Your task to perform on an android device: Go to eBay Image 0: 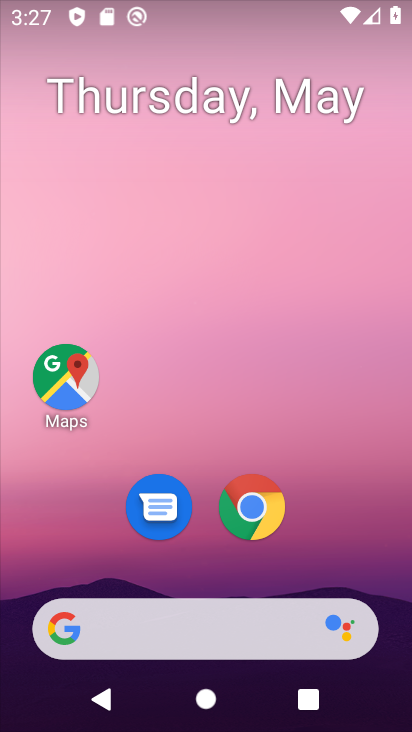
Step 0: drag from (343, 577) to (198, 126)
Your task to perform on an android device: Go to eBay Image 1: 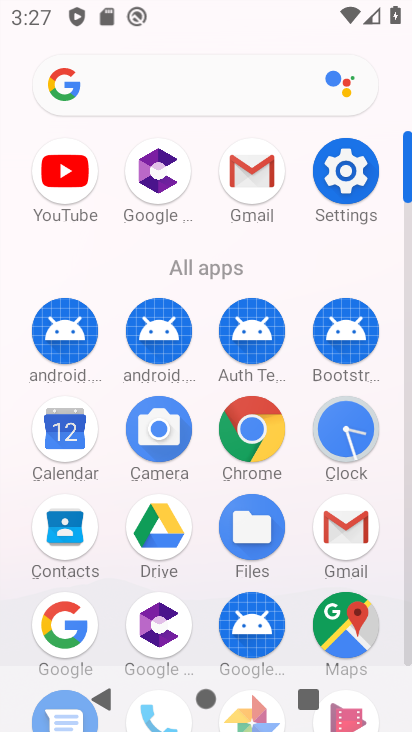
Step 1: click (252, 433)
Your task to perform on an android device: Go to eBay Image 2: 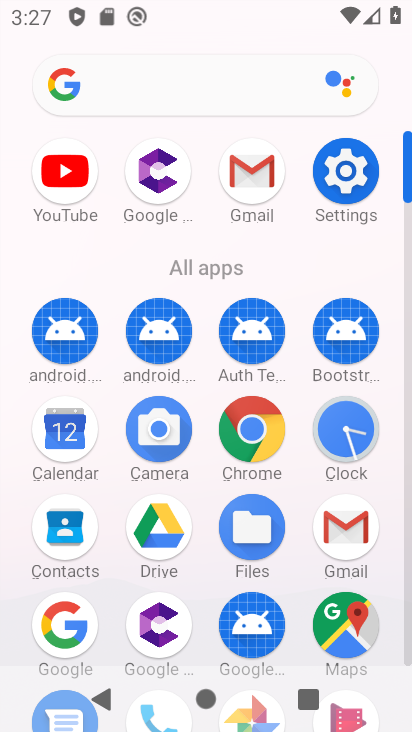
Step 2: click (251, 433)
Your task to perform on an android device: Go to eBay Image 3: 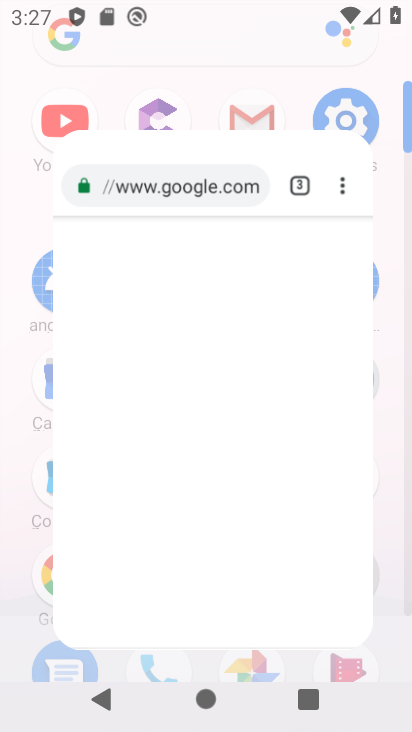
Step 3: click (251, 433)
Your task to perform on an android device: Go to eBay Image 4: 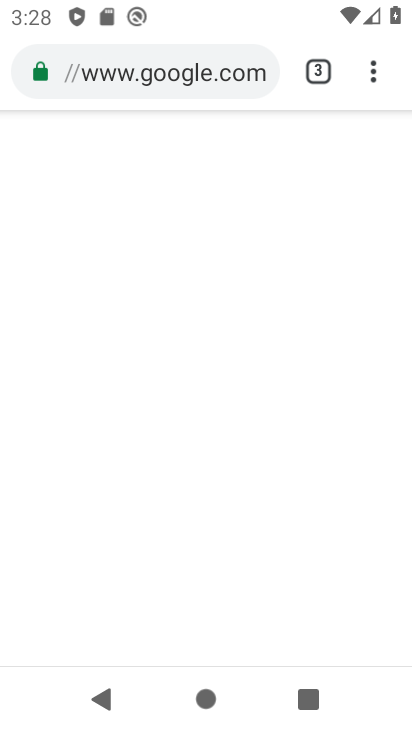
Step 4: click (377, 77)
Your task to perform on an android device: Go to eBay Image 5: 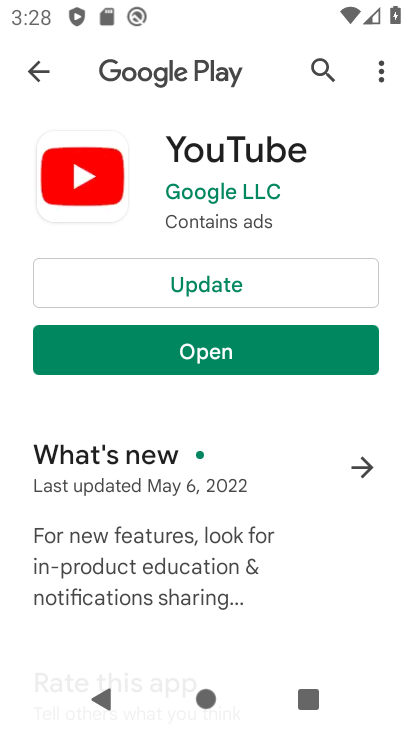
Step 5: press back button
Your task to perform on an android device: Go to eBay Image 6: 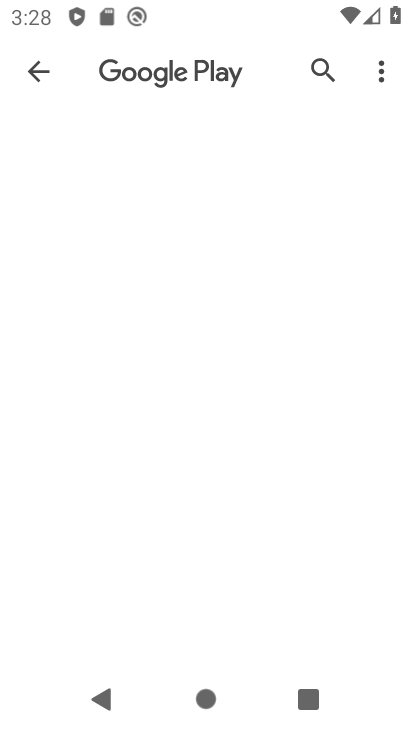
Step 6: press back button
Your task to perform on an android device: Go to eBay Image 7: 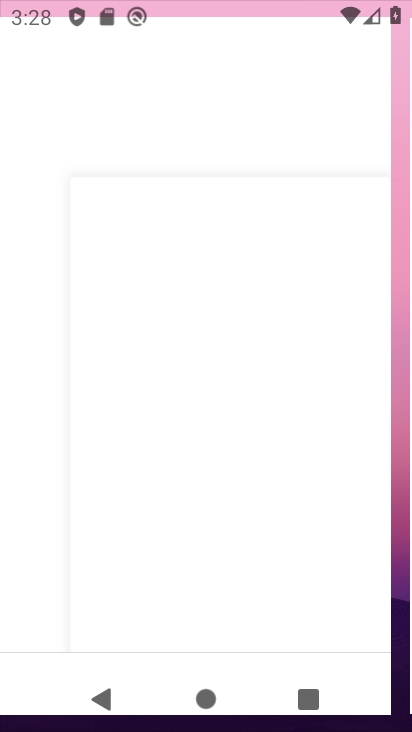
Step 7: press back button
Your task to perform on an android device: Go to eBay Image 8: 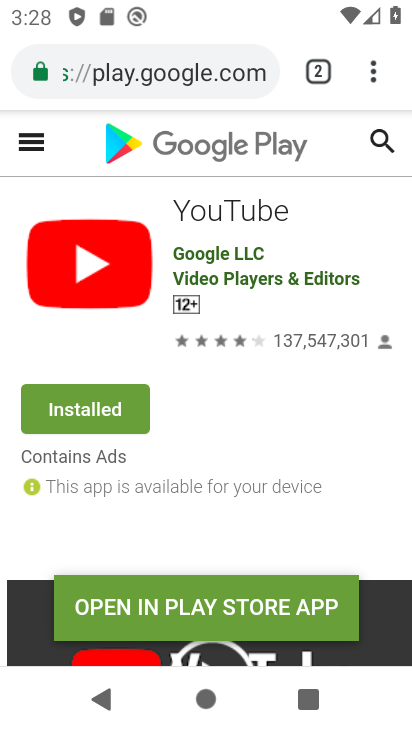
Step 8: press home button
Your task to perform on an android device: Go to eBay Image 9: 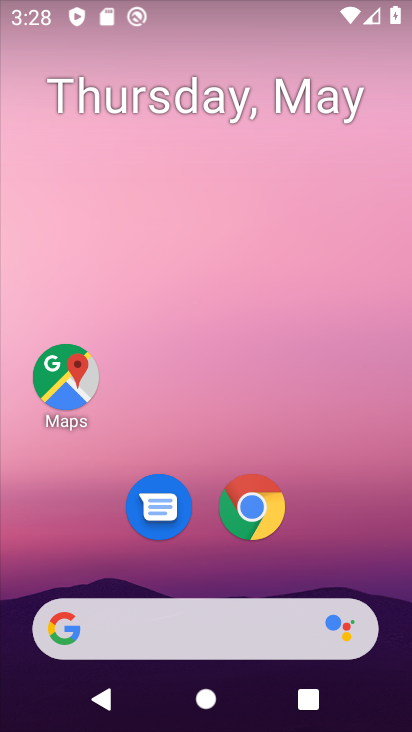
Step 9: drag from (261, 563) to (194, 228)
Your task to perform on an android device: Go to eBay Image 10: 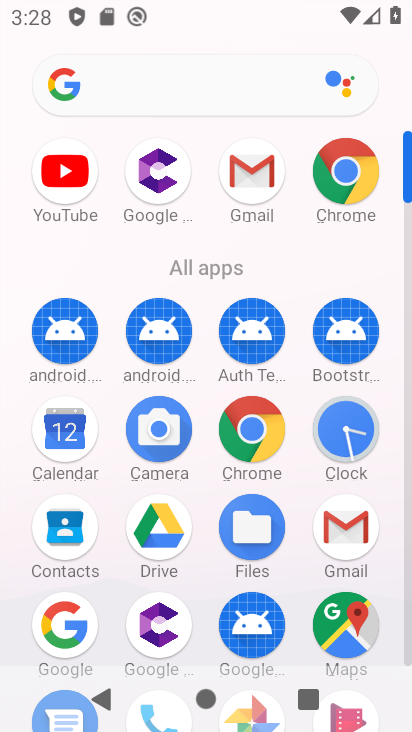
Step 10: click (344, 178)
Your task to perform on an android device: Go to eBay Image 11: 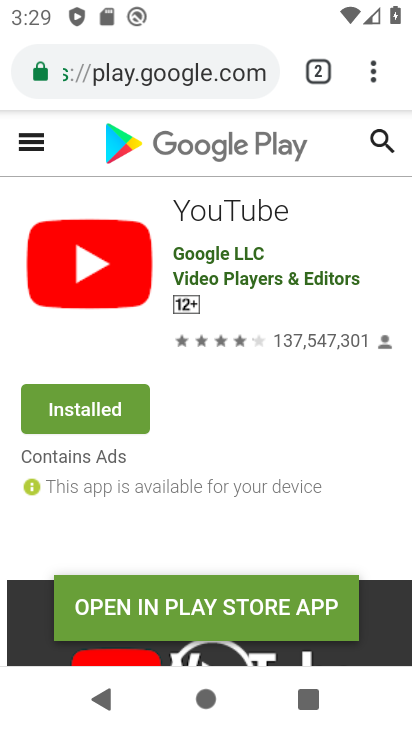
Step 11: press back button
Your task to perform on an android device: Go to eBay Image 12: 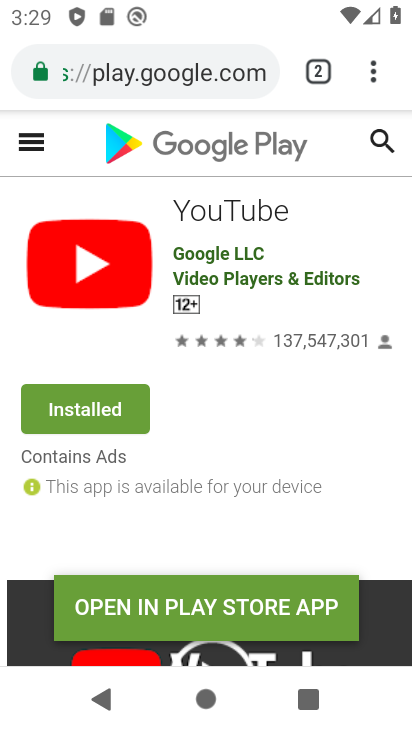
Step 12: press back button
Your task to perform on an android device: Go to eBay Image 13: 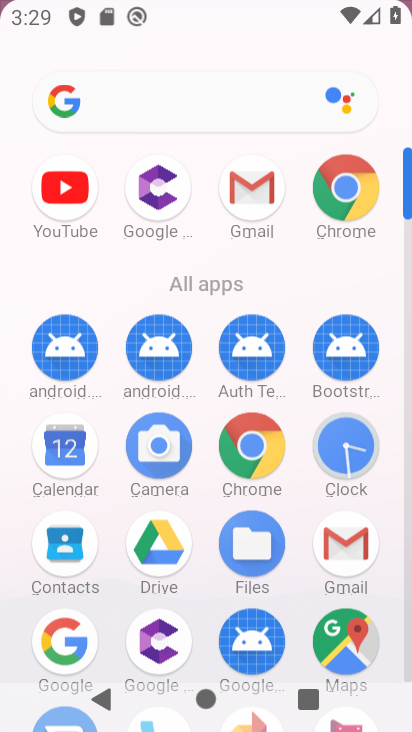
Step 13: press back button
Your task to perform on an android device: Go to eBay Image 14: 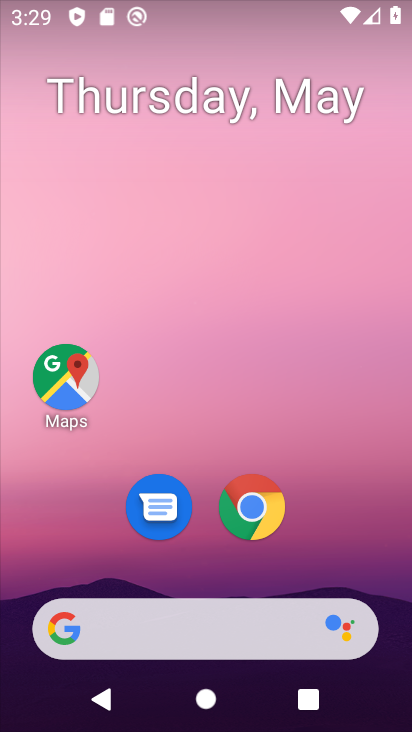
Step 14: drag from (302, 520) to (197, 167)
Your task to perform on an android device: Go to eBay Image 15: 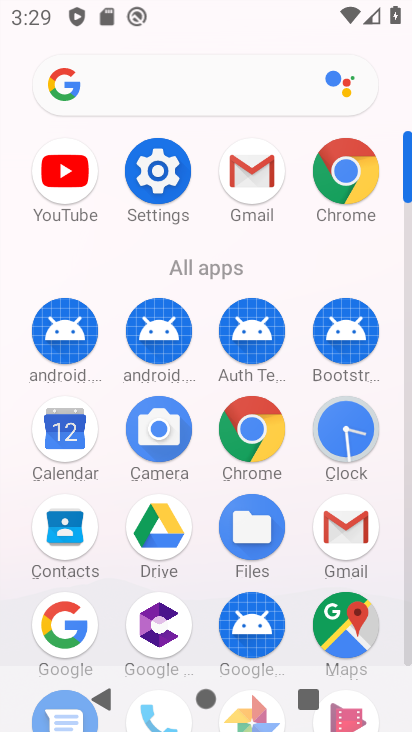
Step 15: click (352, 181)
Your task to perform on an android device: Go to eBay Image 16: 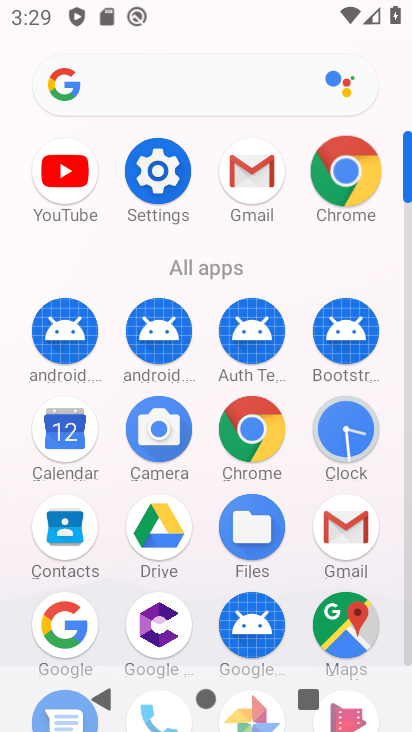
Step 16: click (352, 181)
Your task to perform on an android device: Go to eBay Image 17: 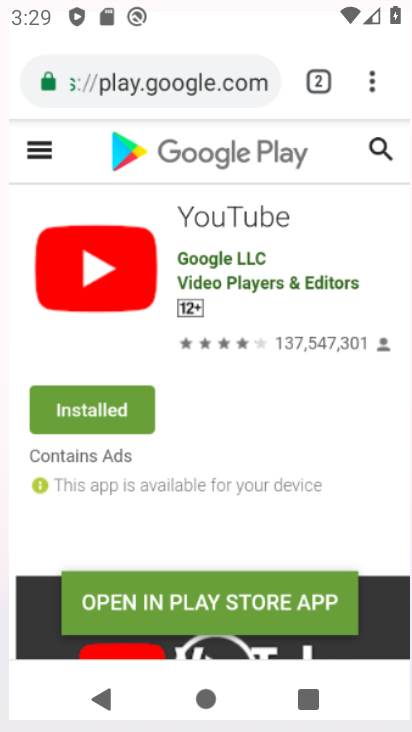
Step 17: click (352, 181)
Your task to perform on an android device: Go to eBay Image 18: 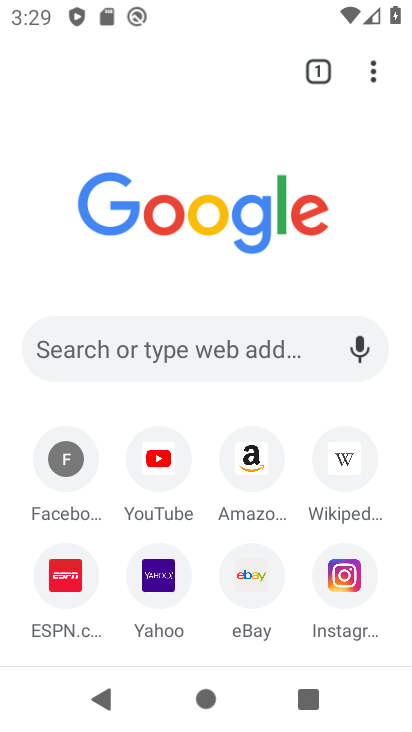
Step 18: click (235, 565)
Your task to perform on an android device: Go to eBay Image 19: 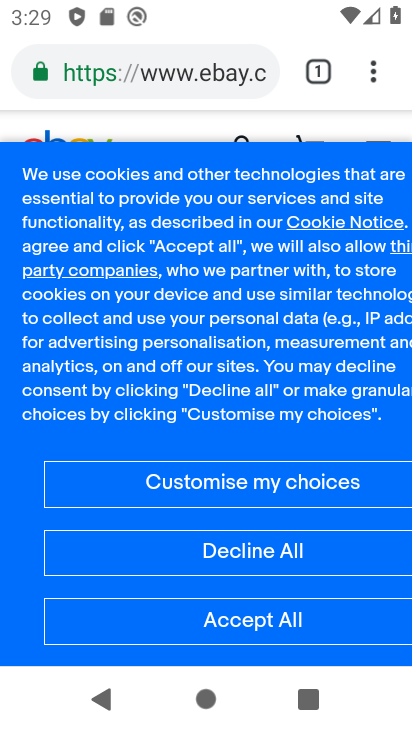
Step 19: click (367, 77)
Your task to perform on an android device: Go to eBay Image 20: 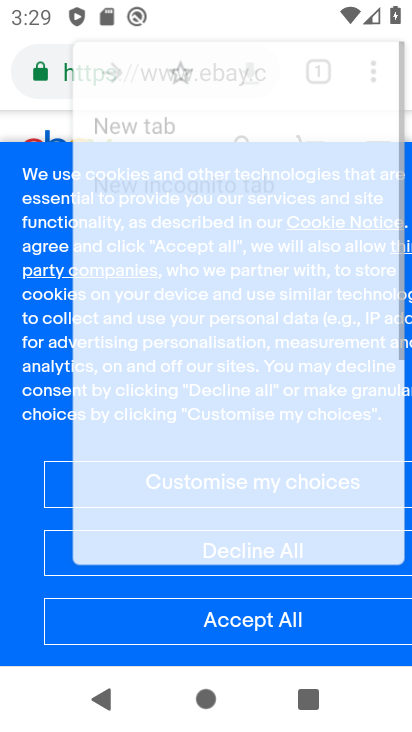
Step 20: click (367, 77)
Your task to perform on an android device: Go to eBay Image 21: 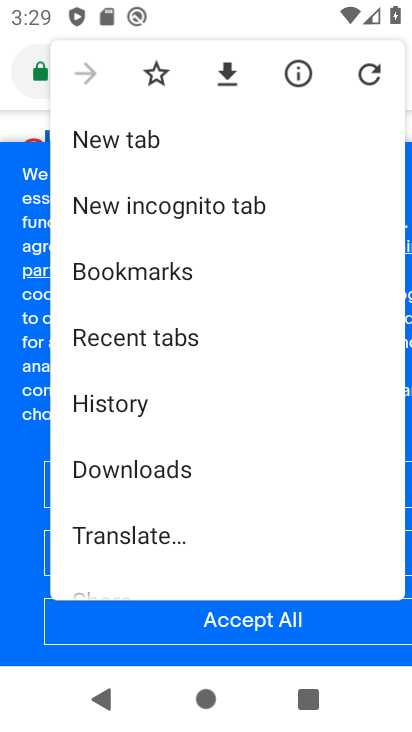
Step 21: drag from (151, 504) to (166, 50)
Your task to perform on an android device: Go to eBay Image 22: 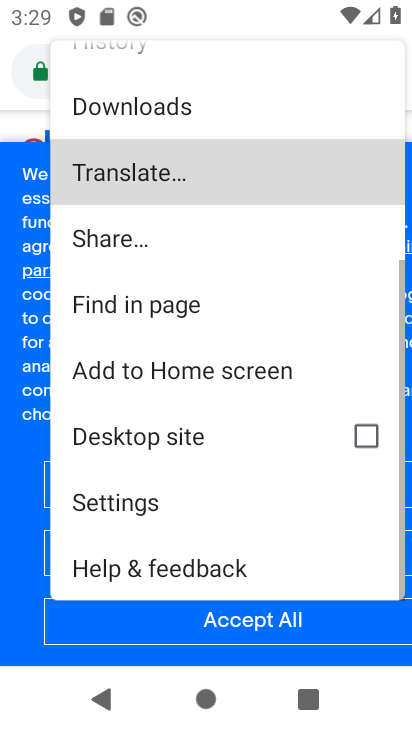
Step 22: drag from (198, 333) to (164, 69)
Your task to perform on an android device: Go to eBay Image 23: 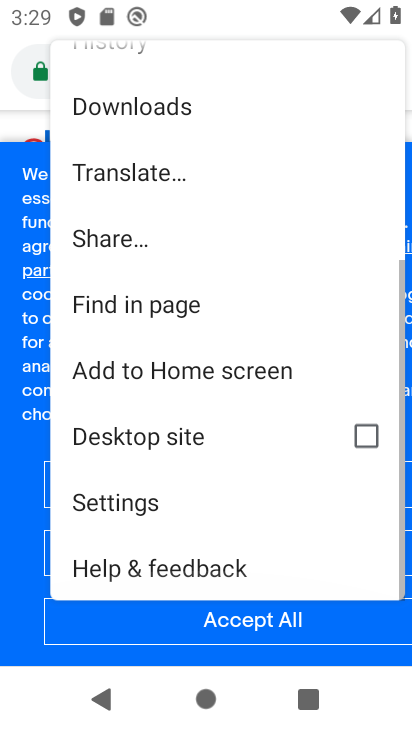
Step 23: drag from (160, 334) to (126, 104)
Your task to perform on an android device: Go to eBay Image 24: 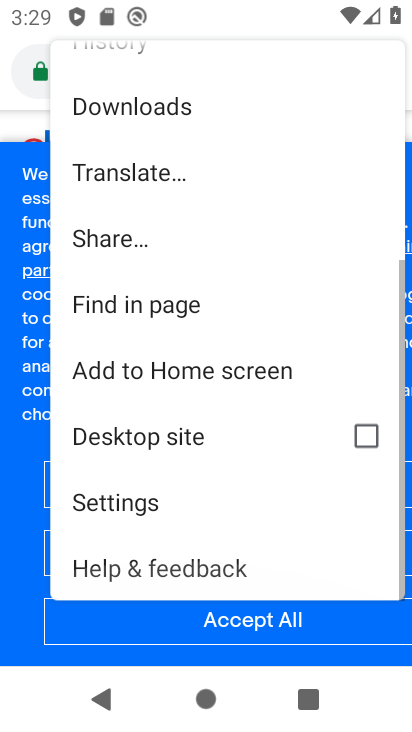
Step 24: drag from (215, 373) to (161, 85)
Your task to perform on an android device: Go to eBay Image 25: 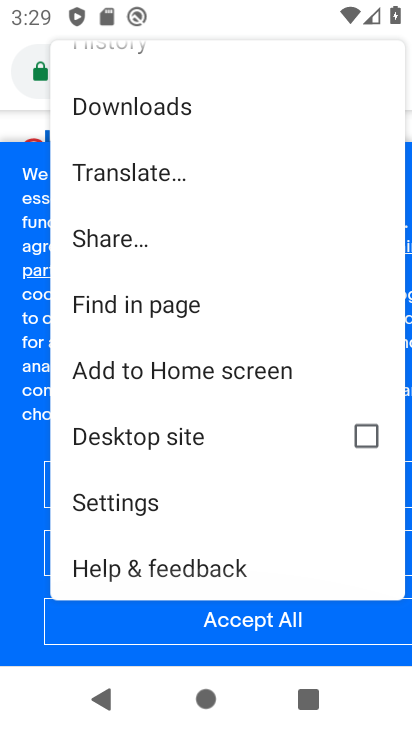
Step 25: drag from (272, 424) to (200, 93)
Your task to perform on an android device: Go to eBay Image 26: 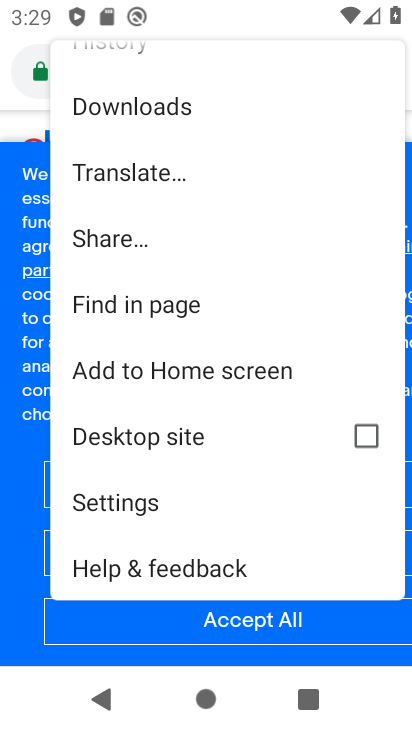
Step 26: drag from (189, 169) to (199, 476)
Your task to perform on an android device: Go to eBay Image 27: 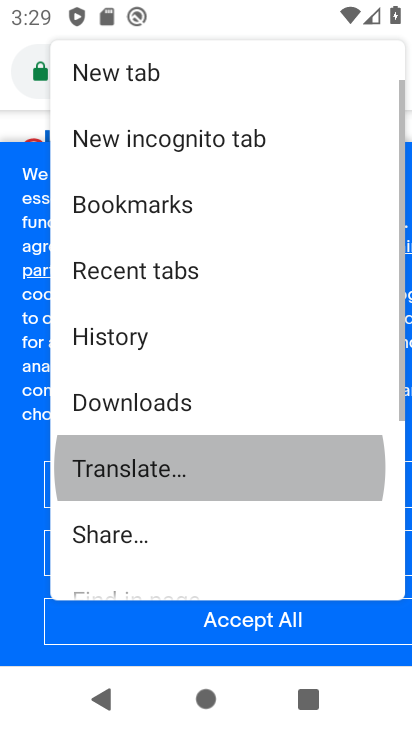
Step 27: drag from (162, 263) to (203, 470)
Your task to perform on an android device: Go to eBay Image 28: 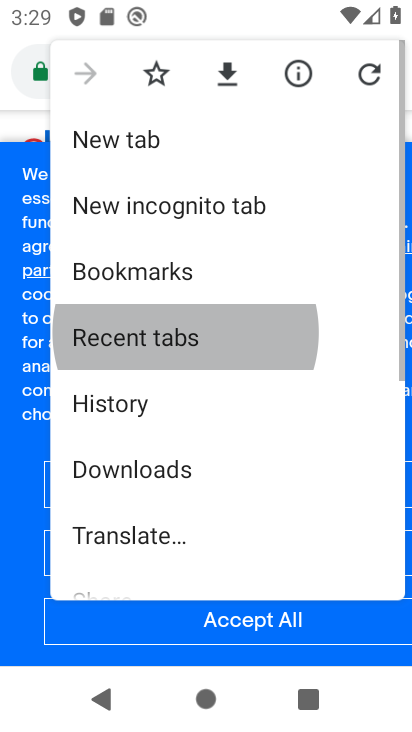
Step 28: drag from (156, 233) to (238, 504)
Your task to perform on an android device: Go to eBay Image 29: 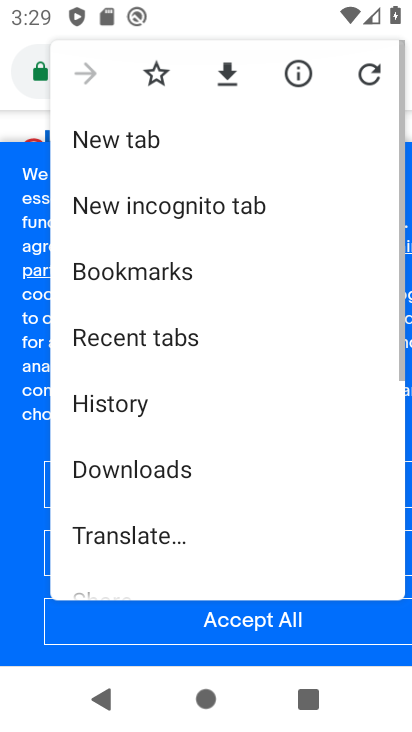
Step 29: drag from (141, 434) to (143, 516)
Your task to perform on an android device: Go to eBay Image 30: 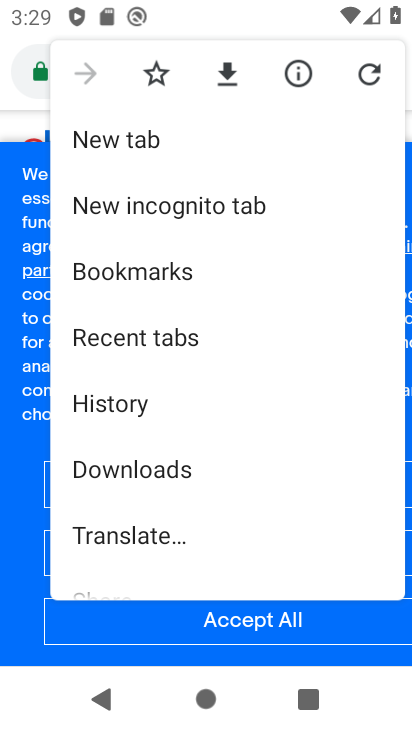
Step 30: click (111, 147)
Your task to perform on an android device: Go to eBay Image 31: 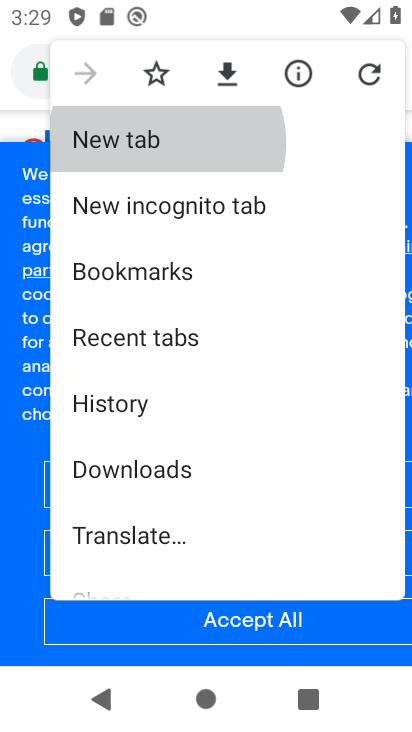
Step 31: click (110, 141)
Your task to perform on an android device: Go to eBay Image 32: 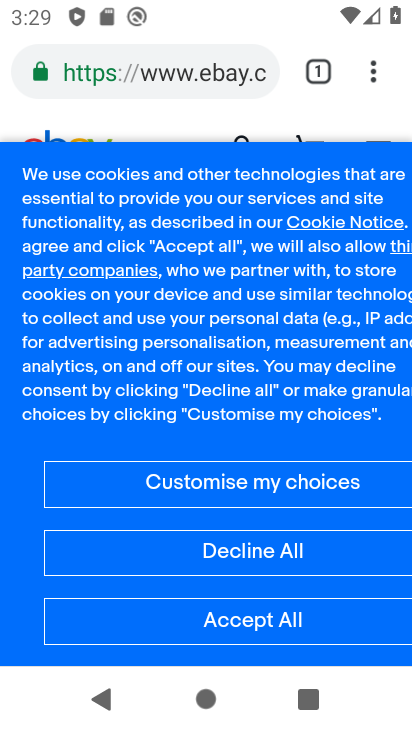
Step 32: click (109, 142)
Your task to perform on an android device: Go to eBay Image 33: 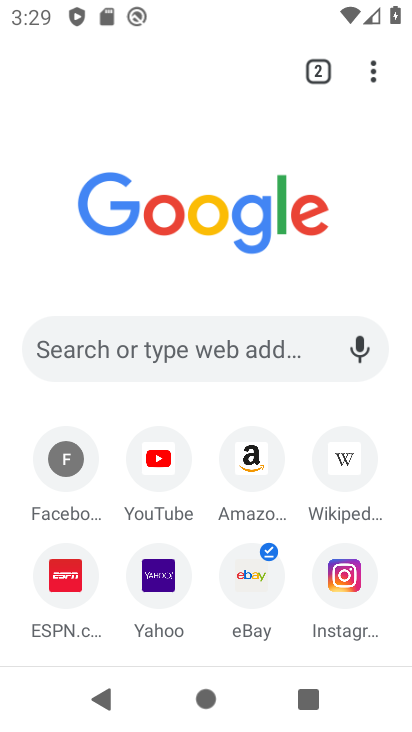
Step 33: click (276, 545)
Your task to perform on an android device: Go to eBay Image 34: 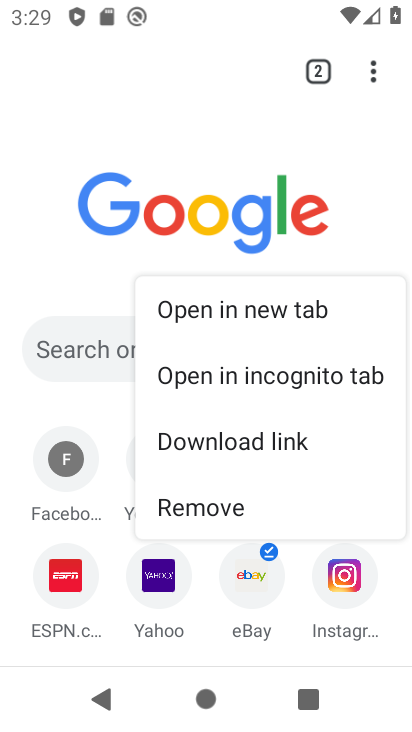
Step 34: click (246, 585)
Your task to perform on an android device: Go to eBay Image 35: 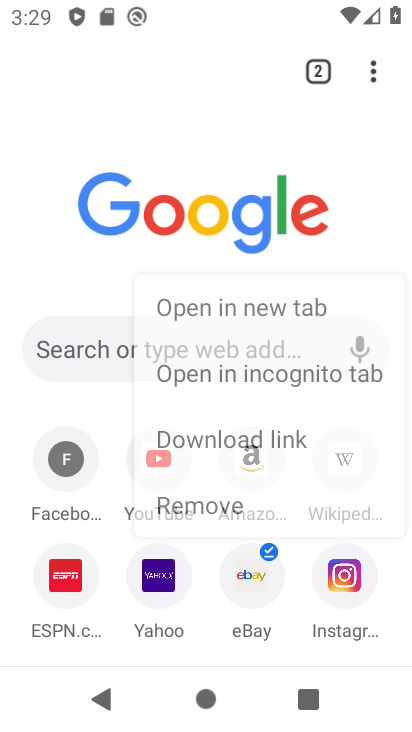
Step 35: click (247, 581)
Your task to perform on an android device: Go to eBay Image 36: 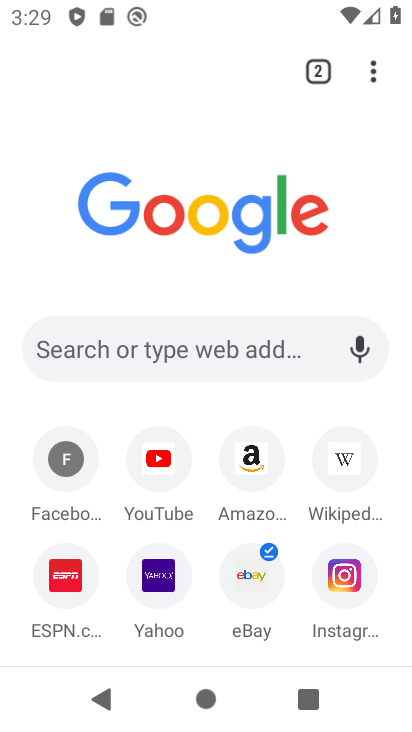
Step 36: click (247, 578)
Your task to perform on an android device: Go to eBay Image 37: 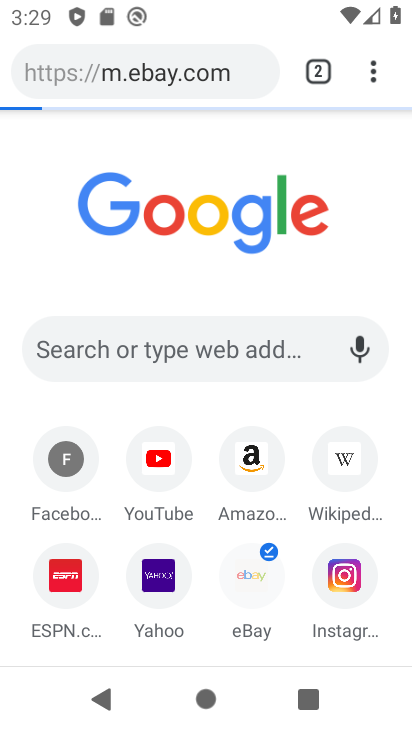
Step 37: click (250, 576)
Your task to perform on an android device: Go to eBay Image 38: 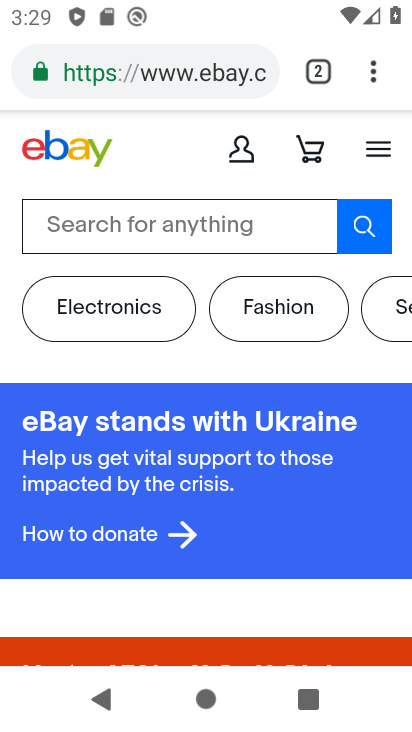
Step 38: task complete